Your task to perform on an android device: Open a new Chrome window Image 0: 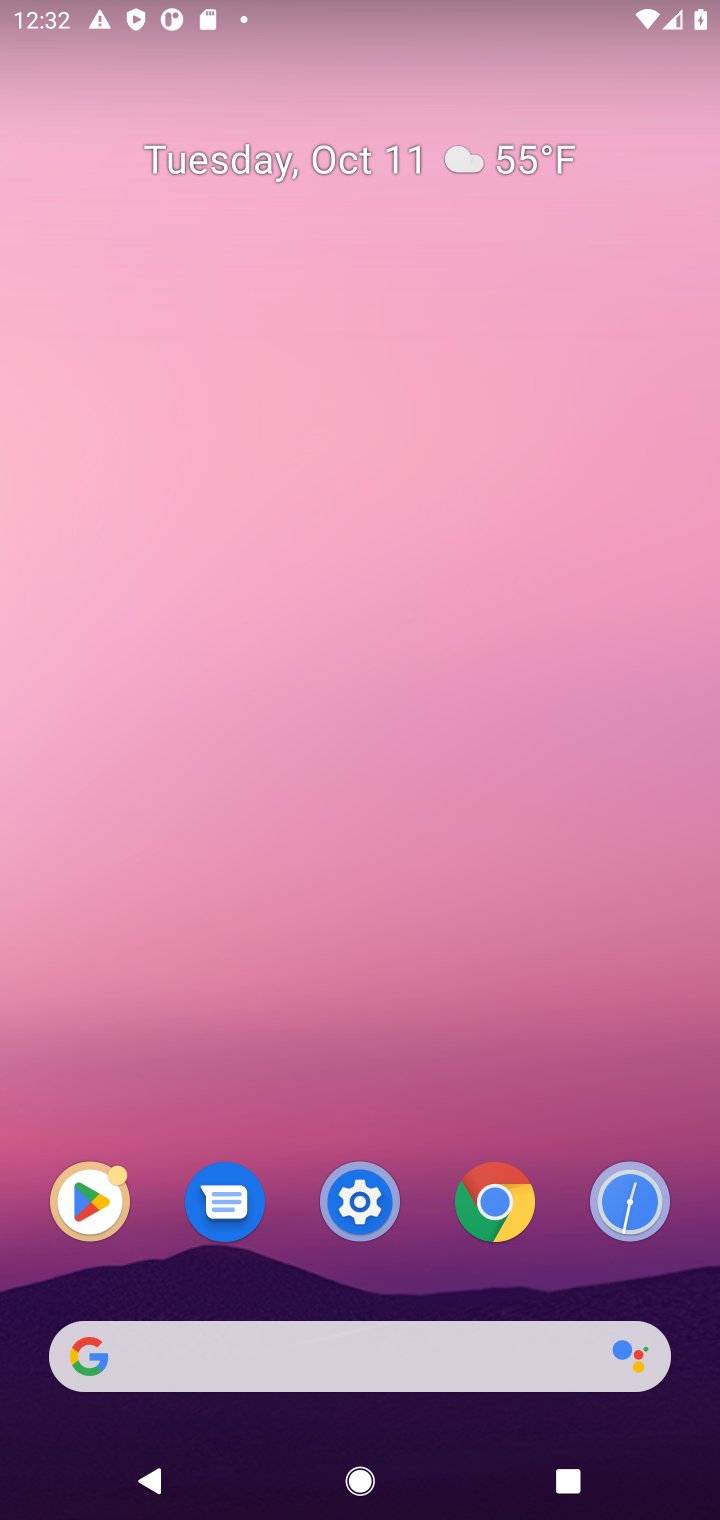
Step 0: task complete